Your task to perform on an android device: Toggle the flashlight Image 0: 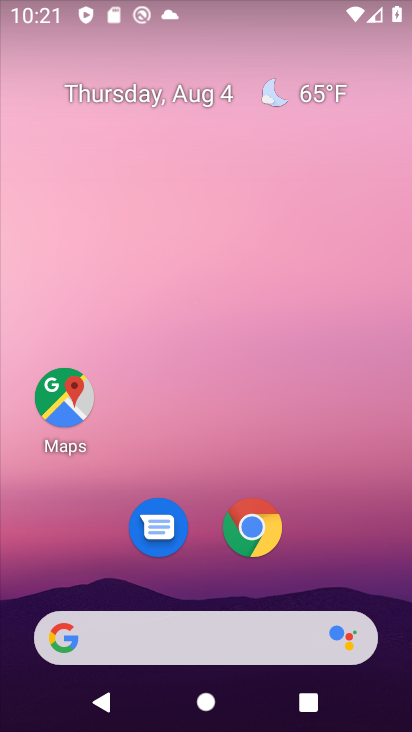
Step 0: drag from (243, 499) to (323, 691)
Your task to perform on an android device: Toggle the flashlight Image 1: 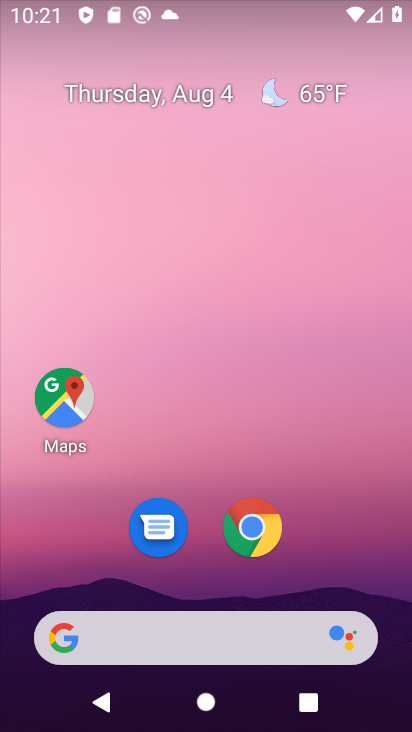
Step 1: task complete